Your task to perform on an android device: Open Wikipedia Image 0: 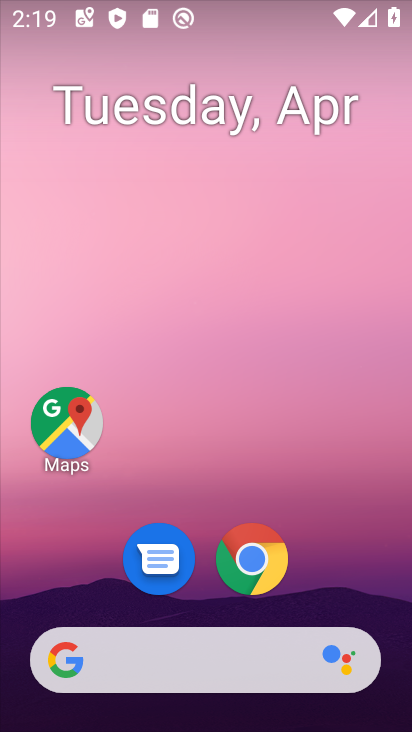
Step 0: click (264, 577)
Your task to perform on an android device: Open Wikipedia Image 1: 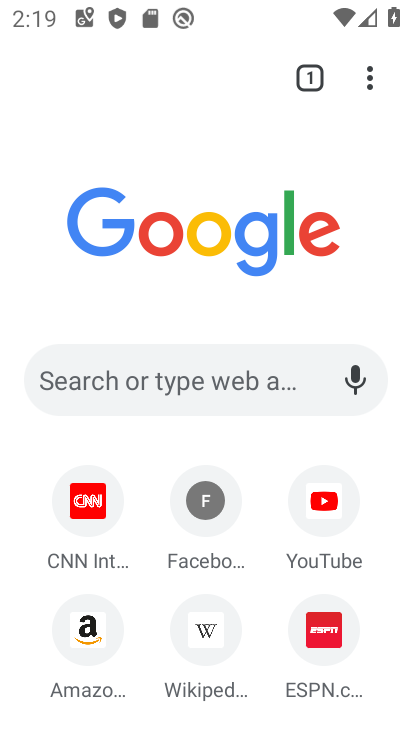
Step 1: click (208, 636)
Your task to perform on an android device: Open Wikipedia Image 2: 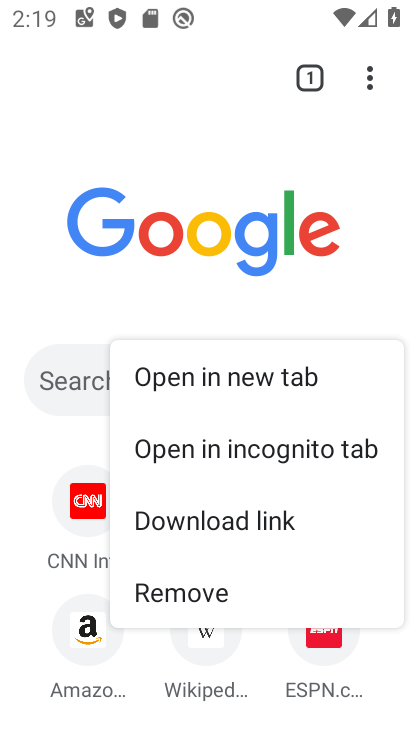
Step 2: click (208, 636)
Your task to perform on an android device: Open Wikipedia Image 3: 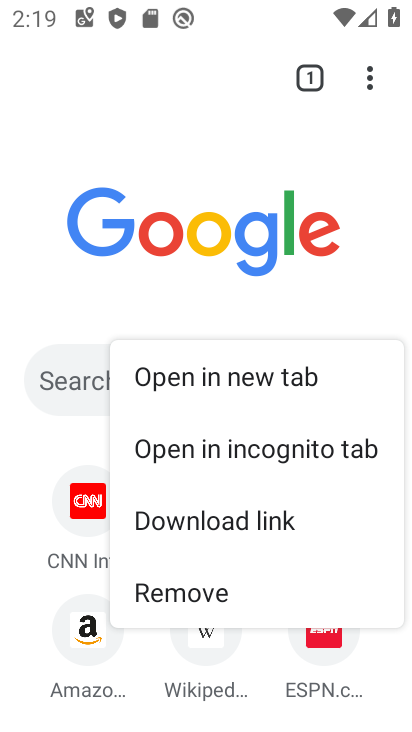
Step 3: click (202, 637)
Your task to perform on an android device: Open Wikipedia Image 4: 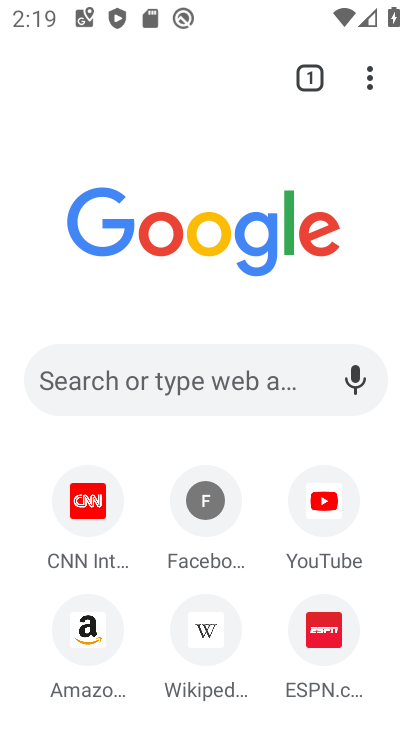
Step 4: click (207, 625)
Your task to perform on an android device: Open Wikipedia Image 5: 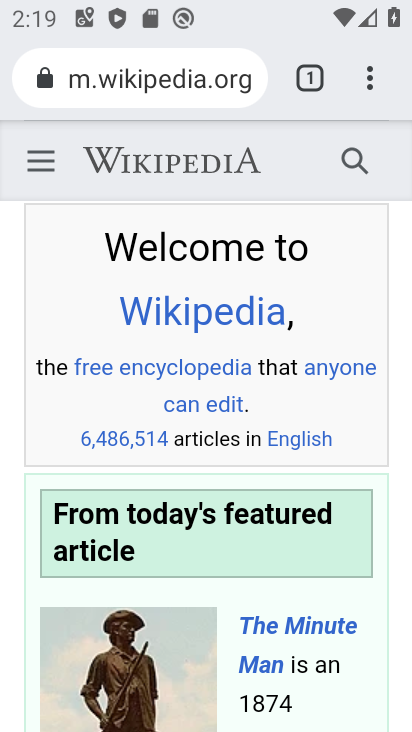
Step 5: task complete